Your task to perform on an android device: Go to privacy settings Image 0: 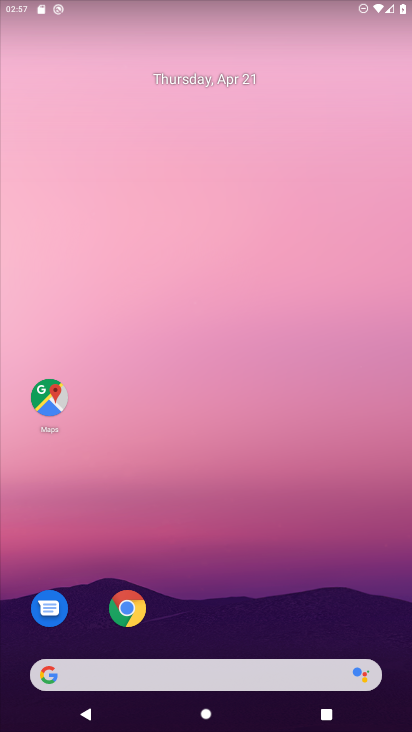
Step 0: drag from (308, 465) to (268, 90)
Your task to perform on an android device: Go to privacy settings Image 1: 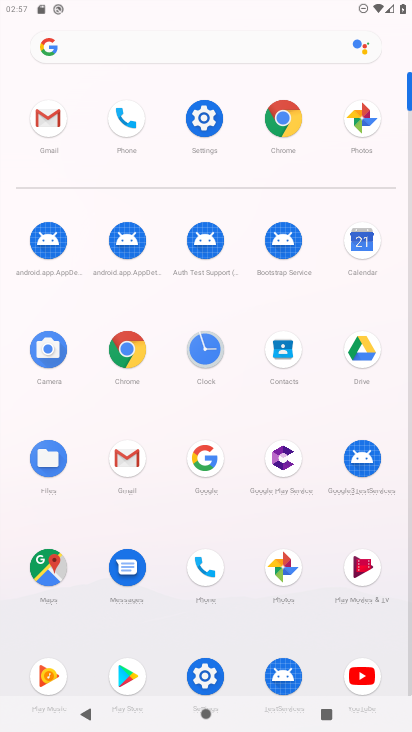
Step 1: click (132, 348)
Your task to perform on an android device: Go to privacy settings Image 2: 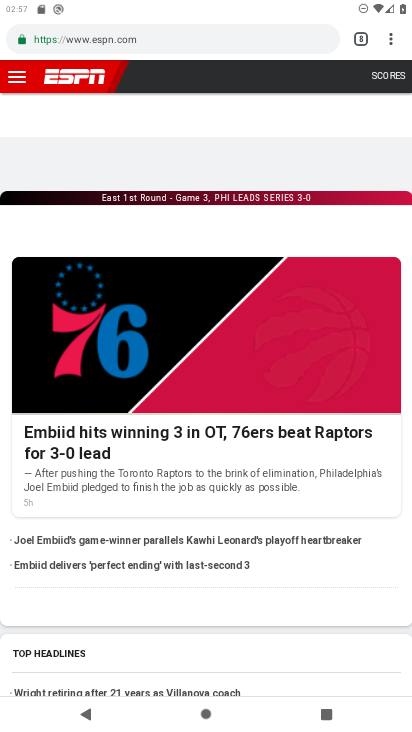
Step 2: click (391, 32)
Your task to perform on an android device: Go to privacy settings Image 3: 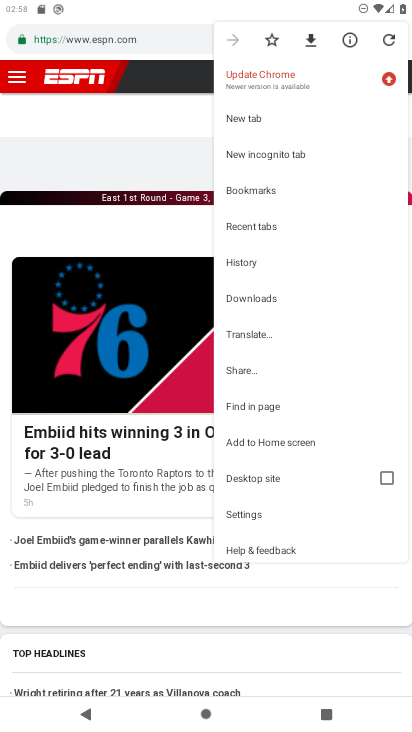
Step 3: click (268, 513)
Your task to perform on an android device: Go to privacy settings Image 4: 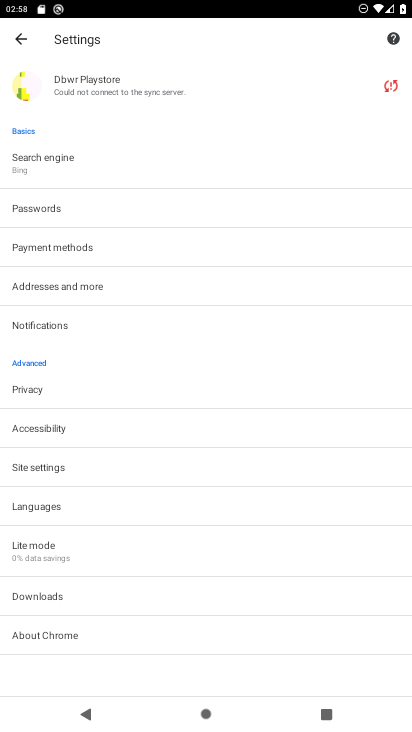
Step 4: click (43, 389)
Your task to perform on an android device: Go to privacy settings Image 5: 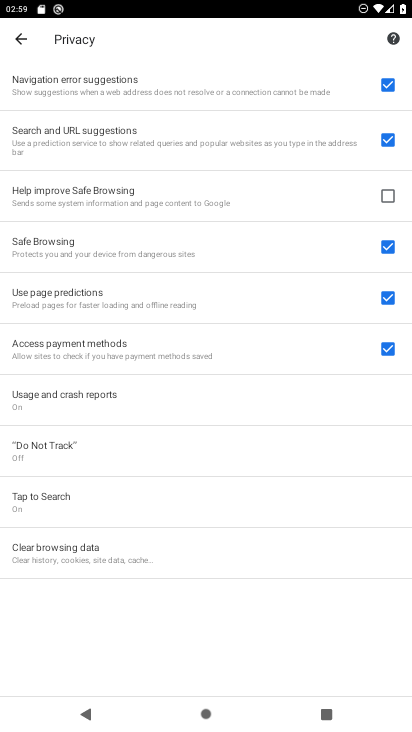
Step 5: task complete